Your task to perform on an android device: Go to wifi settings Image 0: 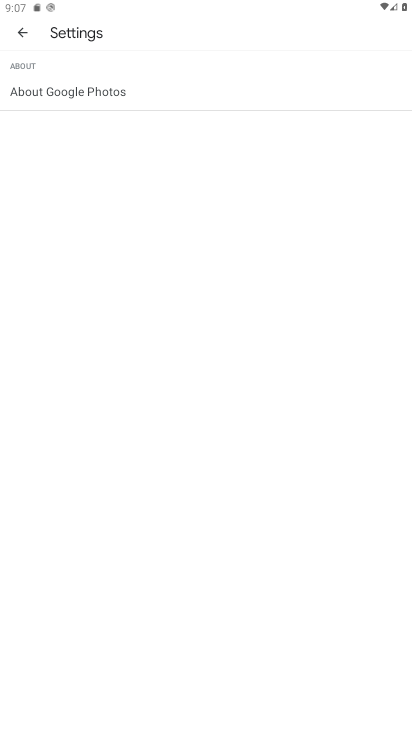
Step 0: press home button
Your task to perform on an android device: Go to wifi settings Image 1: 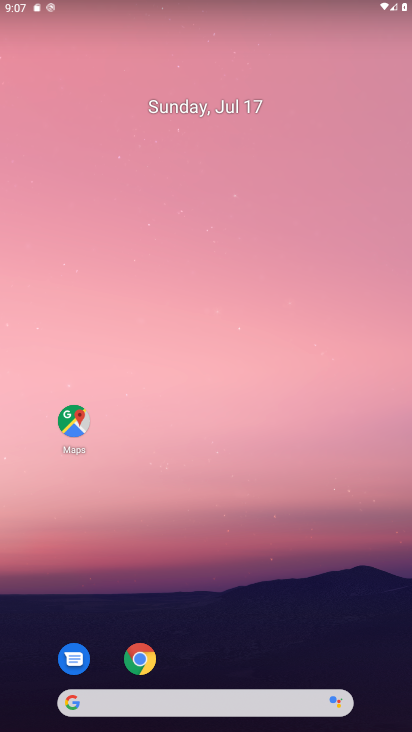
Step 1: drag from (125, 6) to (84, 501)
Your task to perform on an android device: Go to wifi settings Image 2: 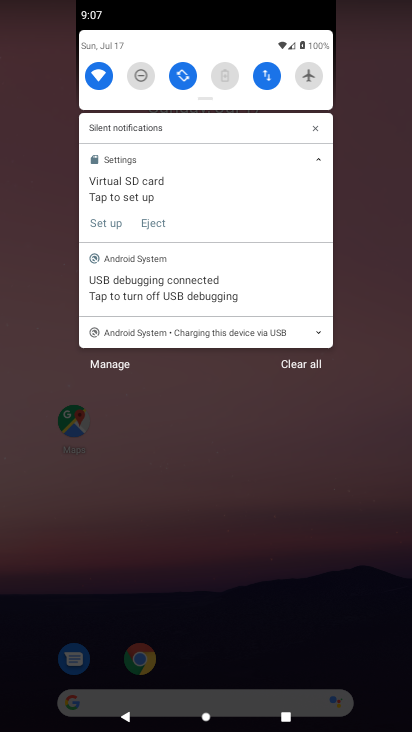
Step 2: click (103, 78)
Your task to perform on an android device: Go to wifi settings Image 3: 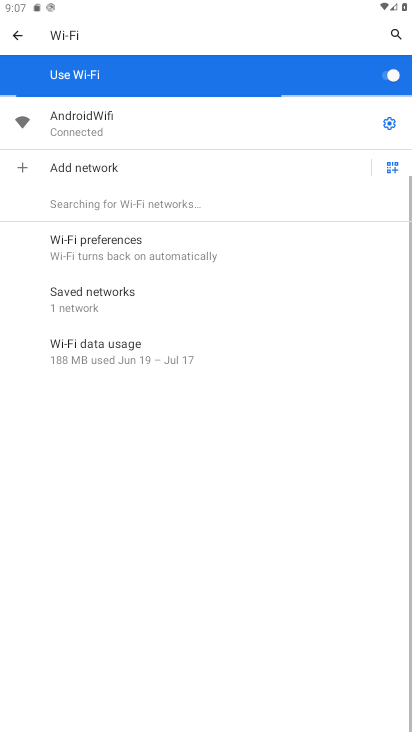
Step 3: task complete